Your task to perform on an android device: Go to eBay Image 0: 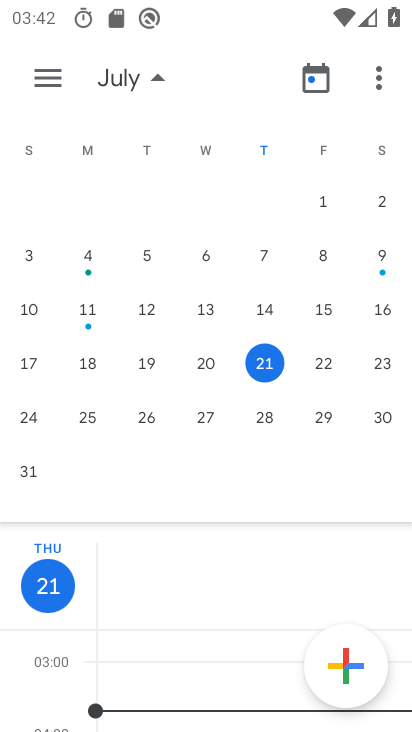
Step 0: press home button
Your task to perform on an android device: Go to eBay Image 1: 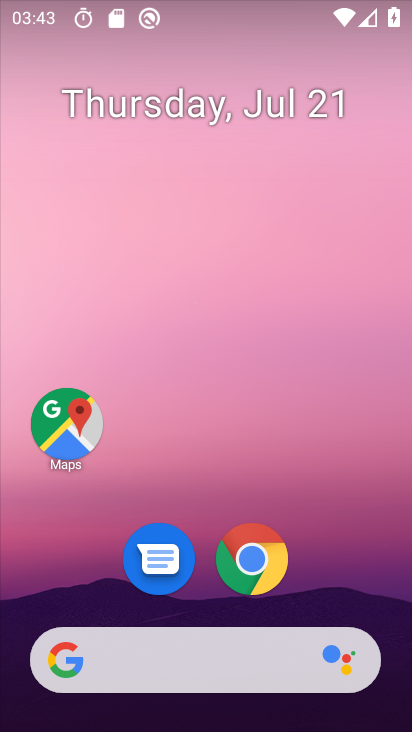
Step 1: drag from (379, 578) to (389, 108)
Your task to perform on an android device: Go to eBay Image 2: 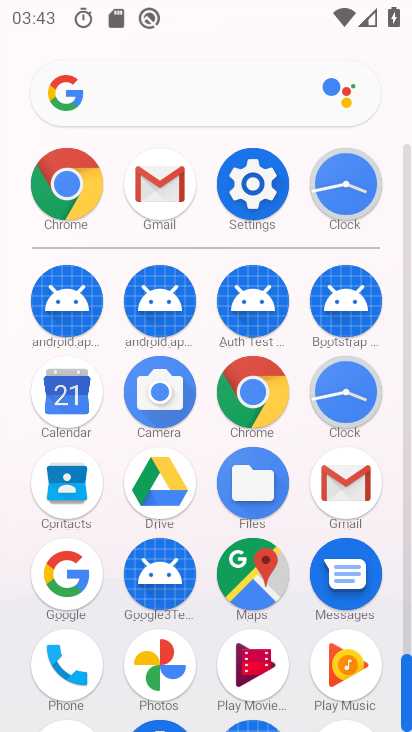
Step 2: click (256, 389)
Your task to perform on an android device: Go to eBay Image 3: 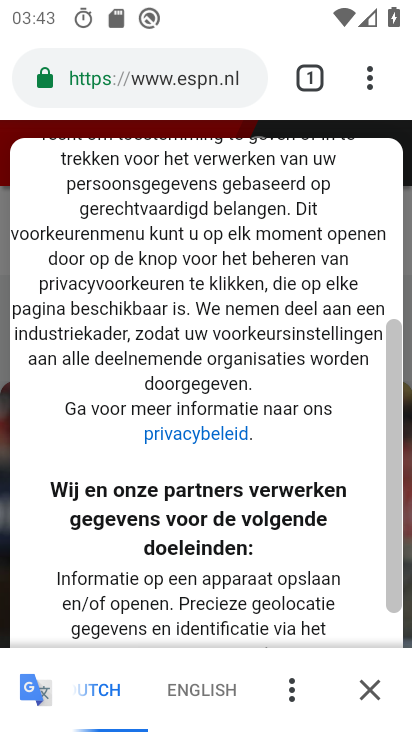
Step 3: click (202, 77)
Your task to perform on an android device: Go to eBay Image 4: 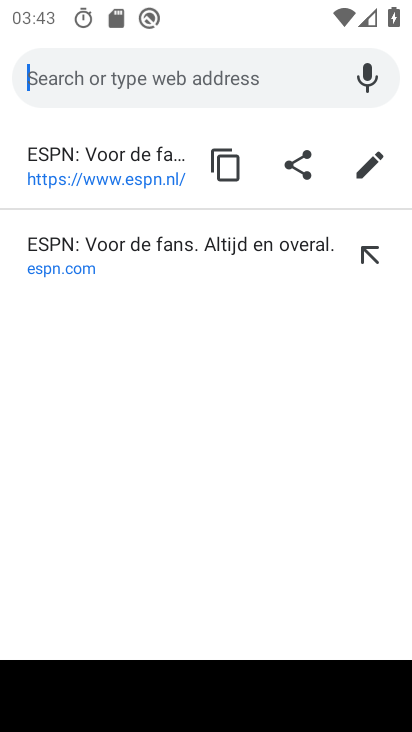
Step 4: type "ebay"
Your task to perform on an android device: Go to eBay Image 5: 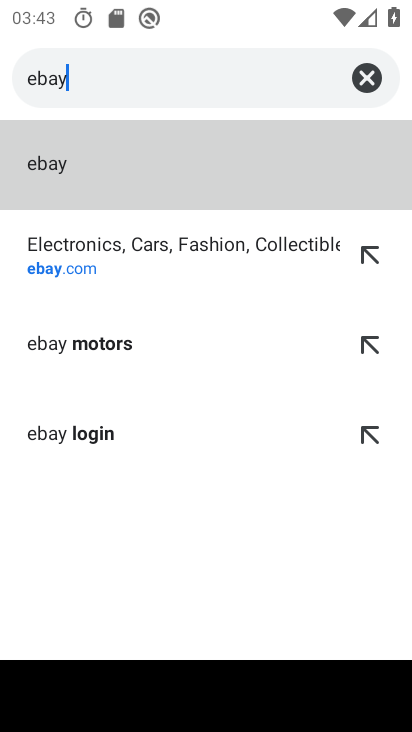
Step 5: click (213, 175)
Your task to perform on an android device: Go to eBay Image 6: 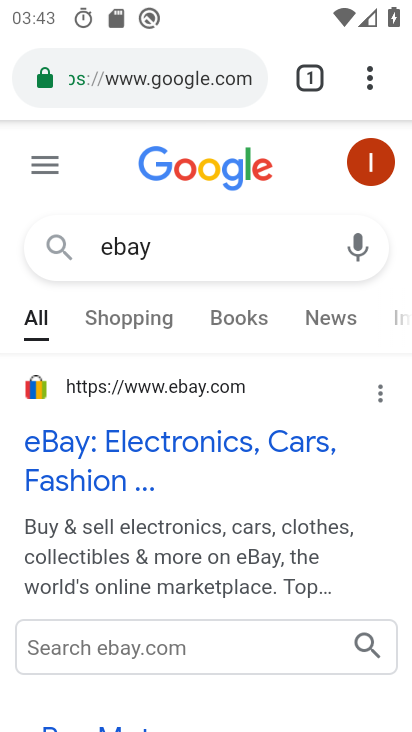
Step 6: task complete